Your task to perform on an android device: uninstall "Life360: Find Family & Friends" Image 0: 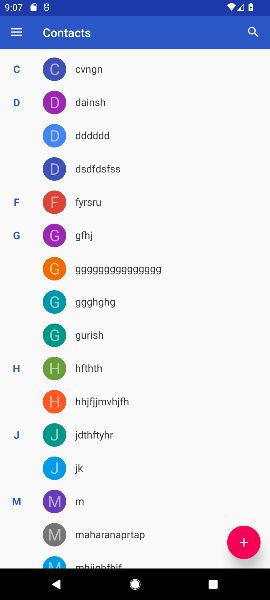
Step 0: press back button
Your task to perform on an android device: uninstall "Life360: Find Family & Friends" Image 1: 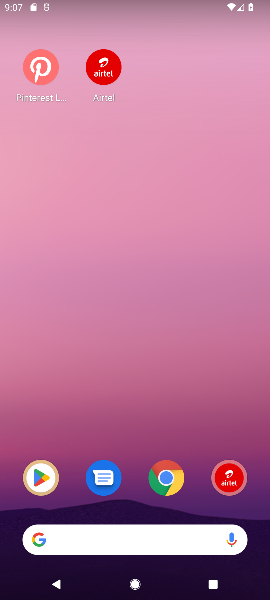
Step 1: click (52, 475)
Your task to perform on an android device: uninstall "Life360: Find Family & Friends" Image 2: 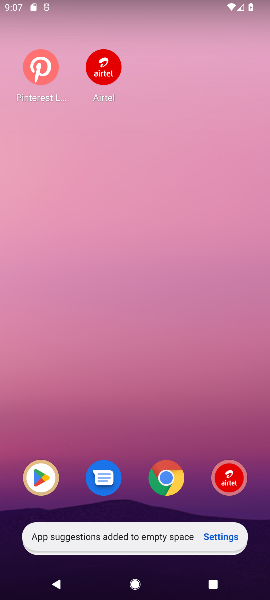
Step 2: click (41, 479)
Your task to perform on an android device: uninstall "Life360: Find Family & Friends" Image 3: 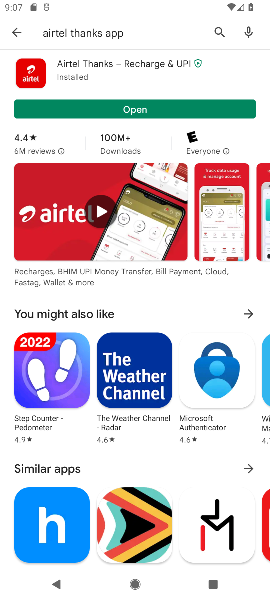
Step 3: click (220, 22)
Your task to perform on an android device: uninstall "Life360: Find Family & Friends" Image 4: 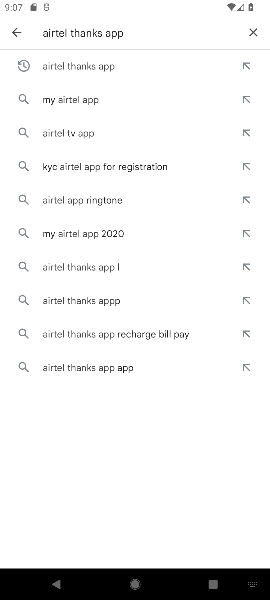
Step 4: click (257, 26)
Your task to perform on an android device: uninstall "Life360: Find Family & Friends" Image 5: 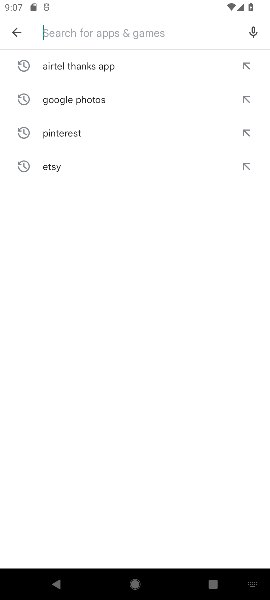
Step 5: click (86, 32)
Your task to perform on an android device: uninstall "Life360: Find Family & Friends" Image 6: 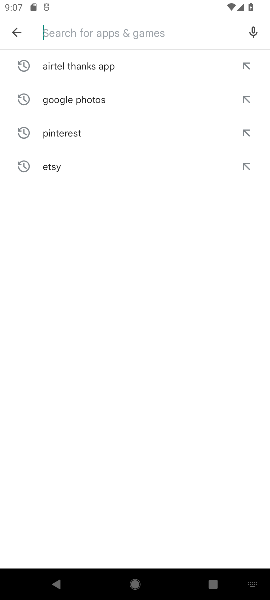
Step 6: type "life 360"
Your task to perform on an android device: uninstall "Life360: Find Family & Friends" Image 7: 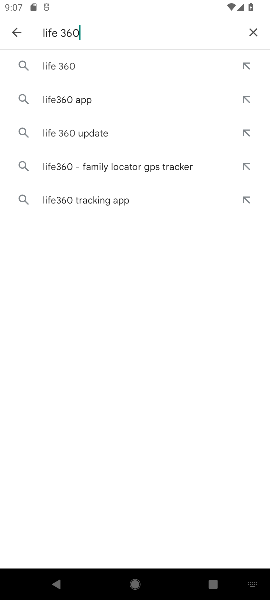
Step 7: click (71, 60)
Your task to perform on an android device: uninstall "Life360: Find Family & Friends" Image 8: 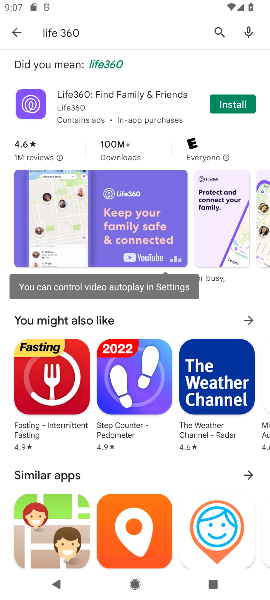
Step 8: task complete